Your task to perform on an android device: Open network settings Image 0: 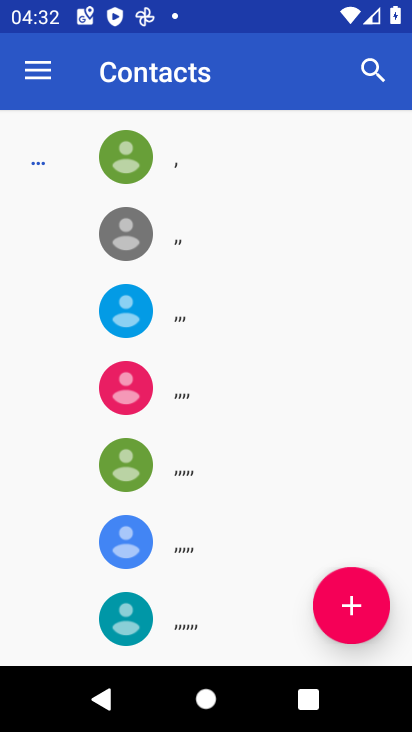
Step 0: press home button
Your task to perform on an android device: Open network settings Image 1: 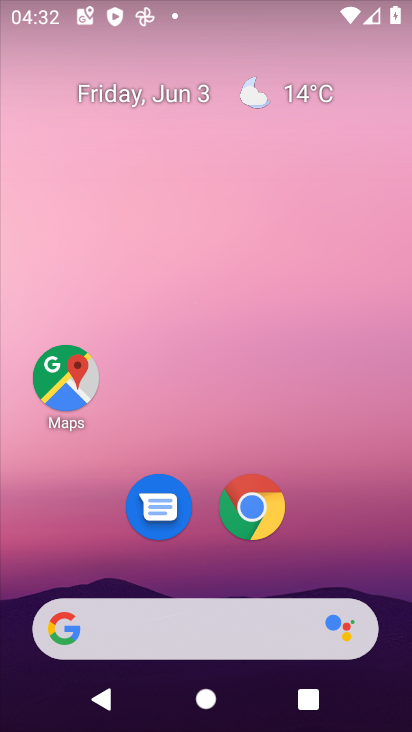
Step 1: drag from (349, 553) to (261, 97)
Your task to perform on an android device: Open network settings Image 2: 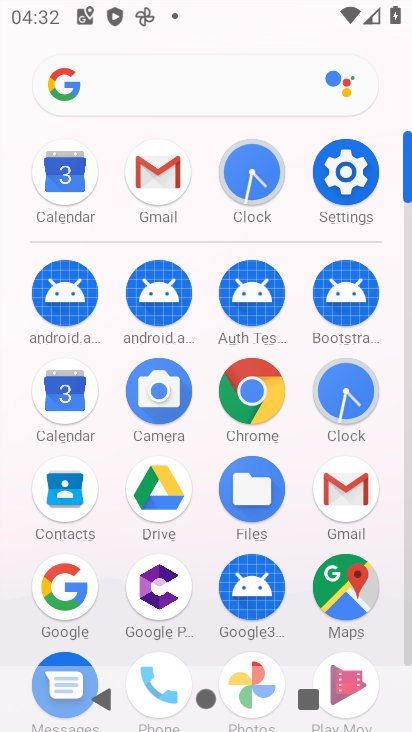
Step 2: click (338, 186)
Your task to perform on an android device: Open network settings Image 3: 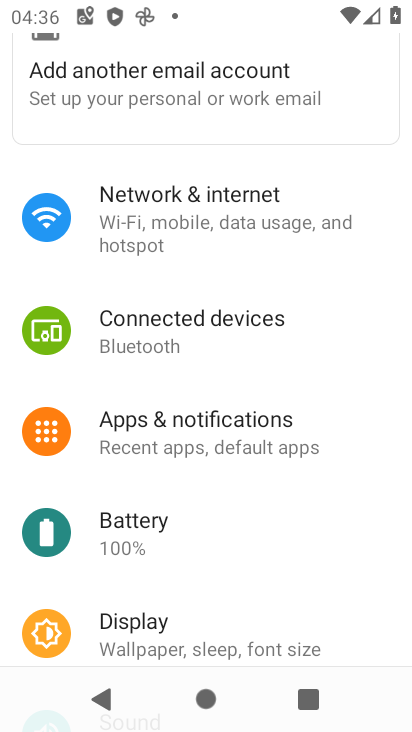
Step 3: click (196, 205)
Your task to perform on an android device: Open network settings Image 4: 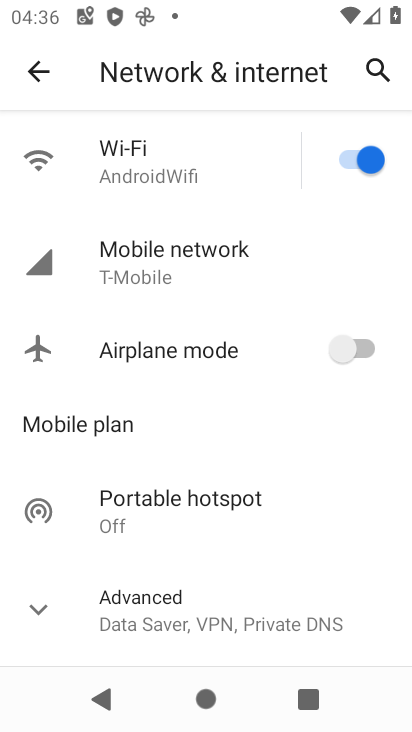
Step 4: task complete